Your task to perform on an android device: open sync settings in chrome Image 0: 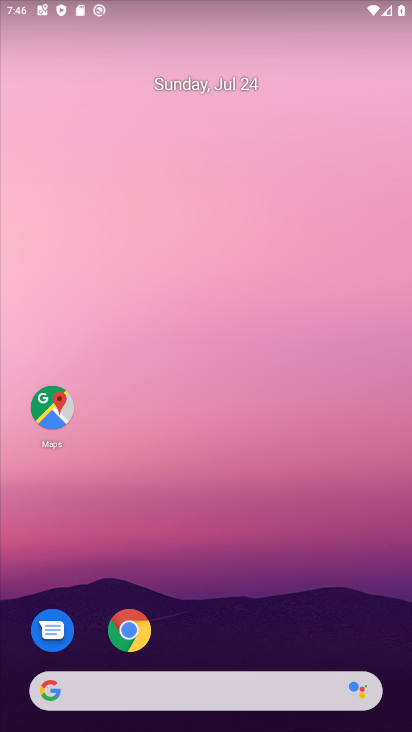
Step 0: click (145, 624)
Your task to perform on an android device: open sync settings in chrome Image 1: 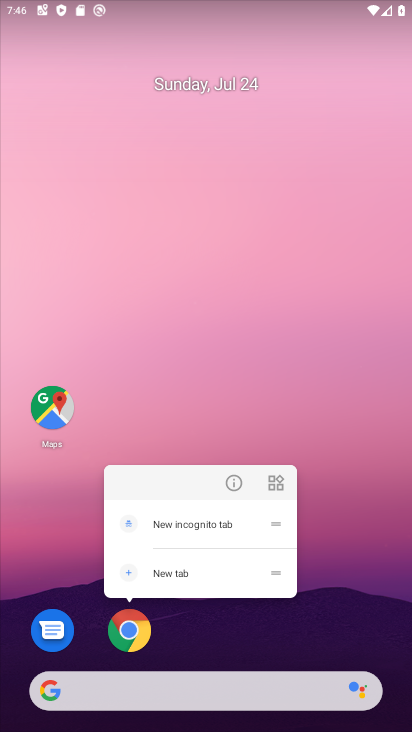
Step 1: click (119, 625)
Your task to perform on an android device: open sync settings in chrome Image 2: 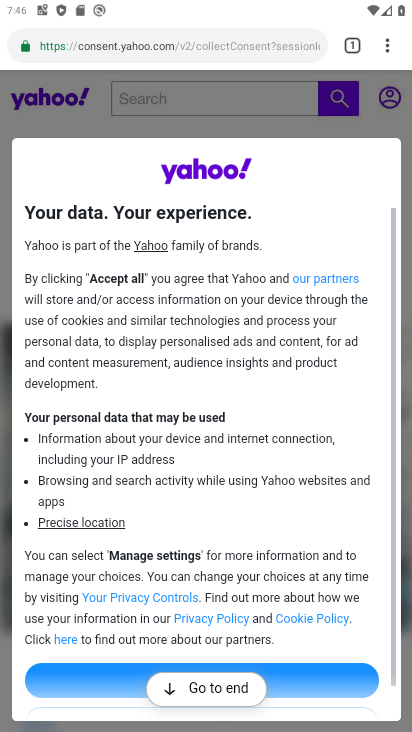
Step 2: click (388, 41)
Your task to perform on an android device: open sync settings in chrome Image 3: 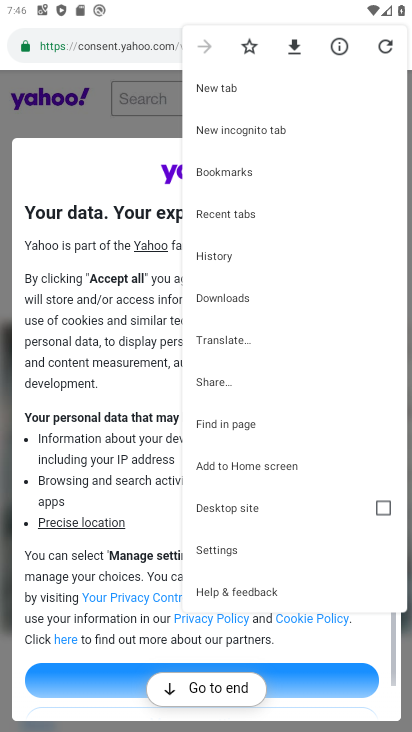
Step 3: click (268, 558)
Your task to perform on an android device: open sync settings in chrome Image 4: 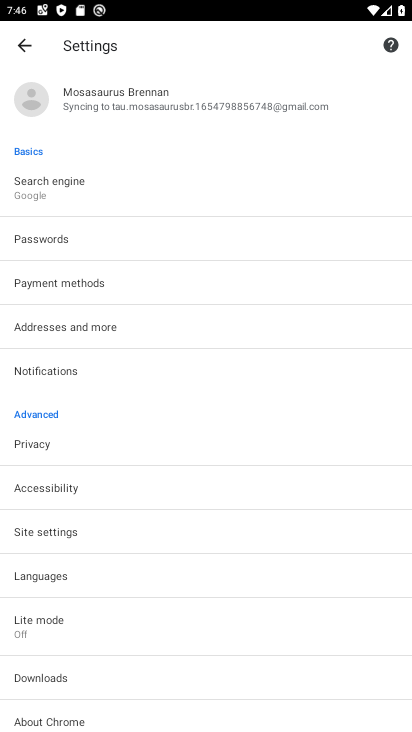
Step 4: click (159, 92)
Your task to perform on an android device: open sync settings in chrome Image 5: 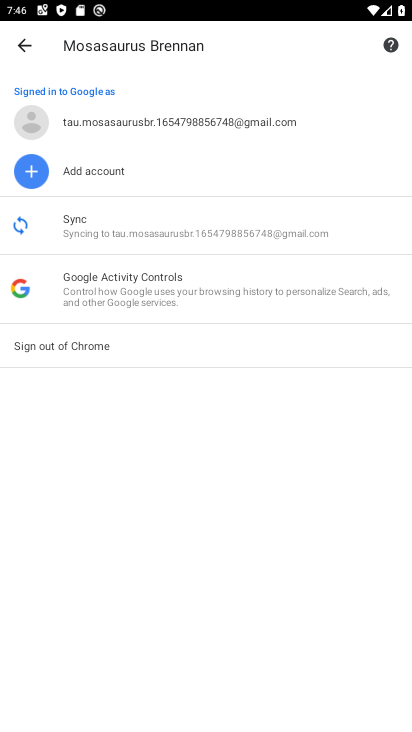
Step 5: click (194, 237)
Your task to perform on an android device: open sync settings in chrome Image 6: 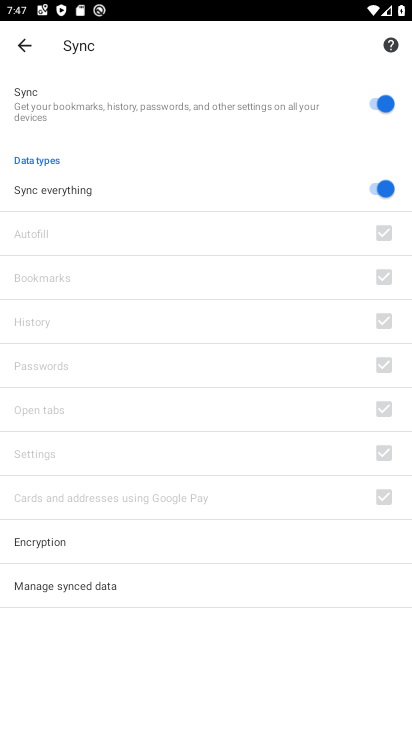
Step 6: task complete